Your task to perform on an android device: open app "Nova Launcher" (install if not already installed) Image 0: 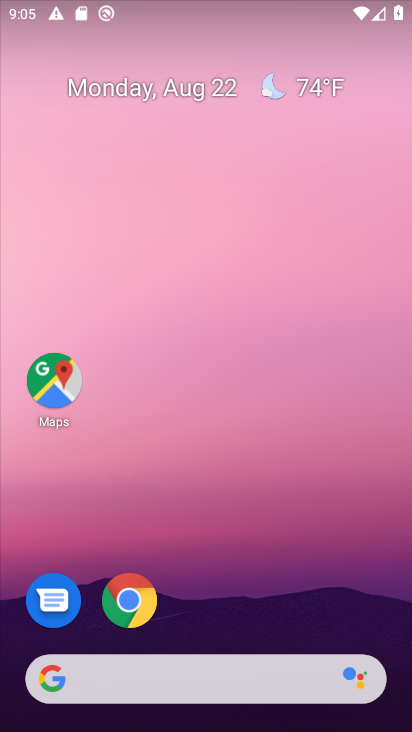
Step 0: drag from (210, 589) to (268, 122)
Your task to perform on an android device: open app "Nova Launcher" (install if not already installed) Image 1: 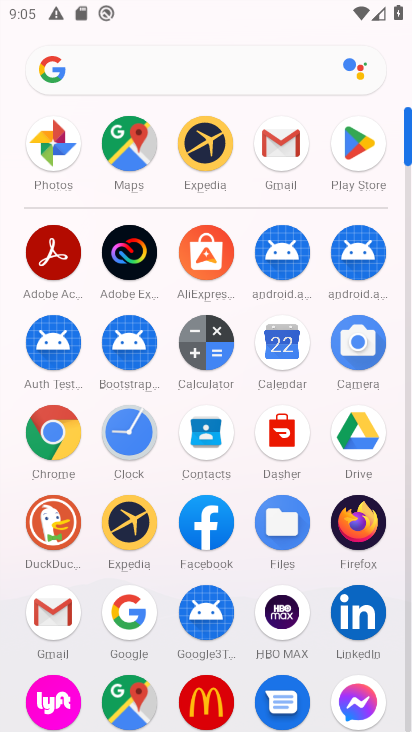
Step 1: click (358, 151)
Your task to perform on an android device: open app "Nova Launcher" (install if not already installed) Image 2: 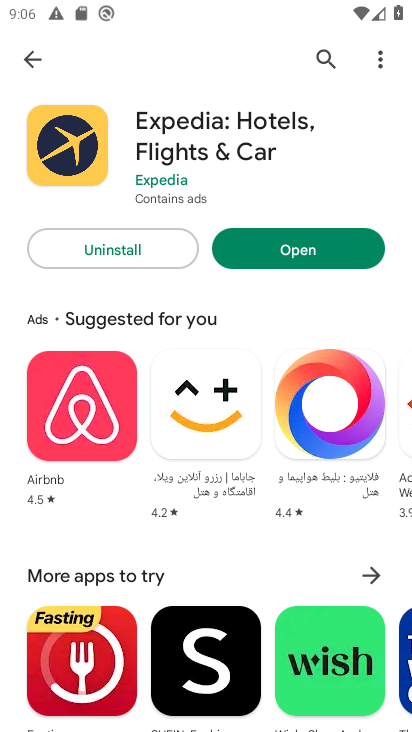
Step 2: click (330, 55)
Your task to perform on an android device: open app "Nova Launcher" (install if not already installed) Image 3: 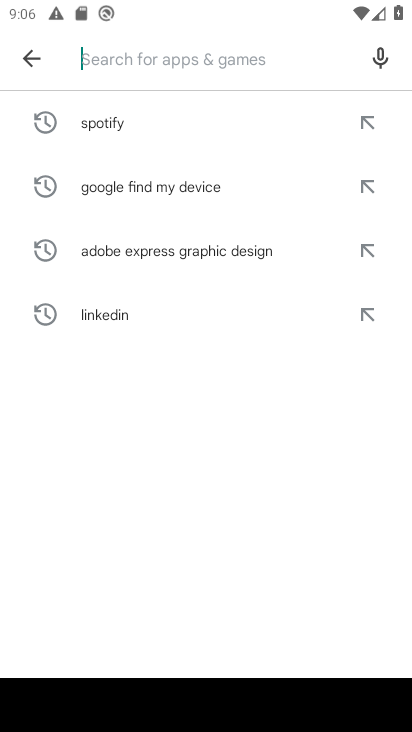
Step 3: type "Nova Launcher"
Your task to perform on an android device: open app "Nova Launcher" (install if not already installed) Image 4: 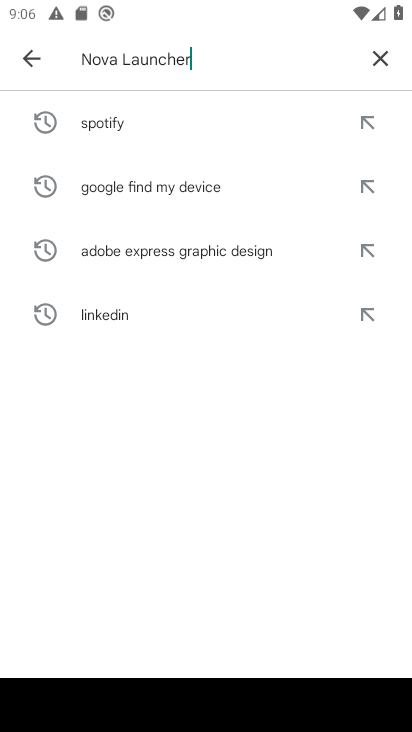
Step 4: type ""
Your task to perform on an android device: open app "Nova Launcher" (install if not already installed) Image 5: 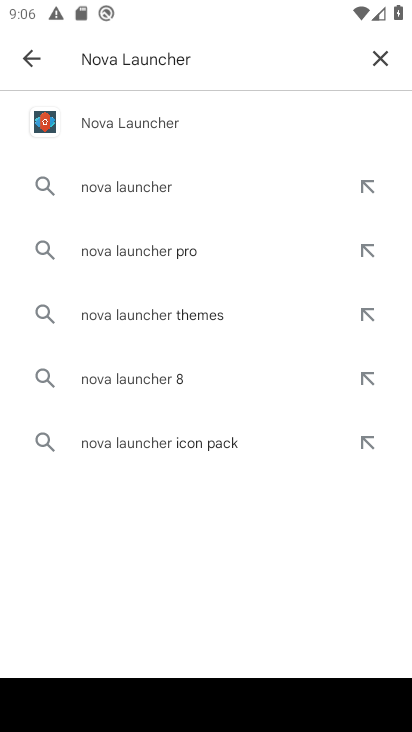
Step 5: click (97, 116)
Your task to perform on an android device: open app "Nova Launcher" (install if not already installed) Image 6: 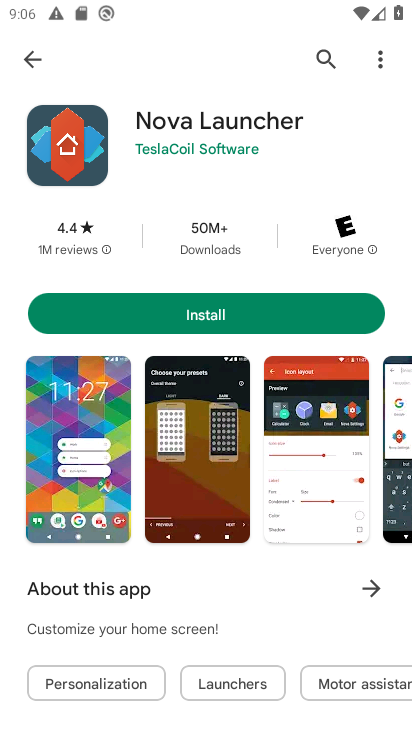
Step 6: click (212, 312)
Your task to perform on an android device: open app "Nova Launcher" (install if not already installed) Image 7: 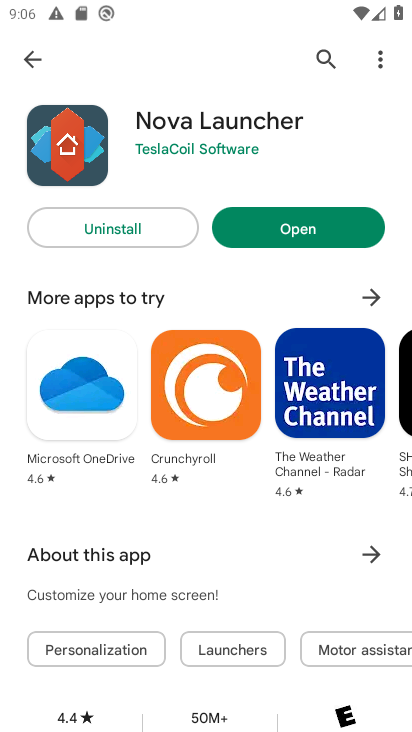
Step 7: click (293, 228)
Your task to perform on an android device: open app "Nova Launcher" (install if not already installed) Image 8: 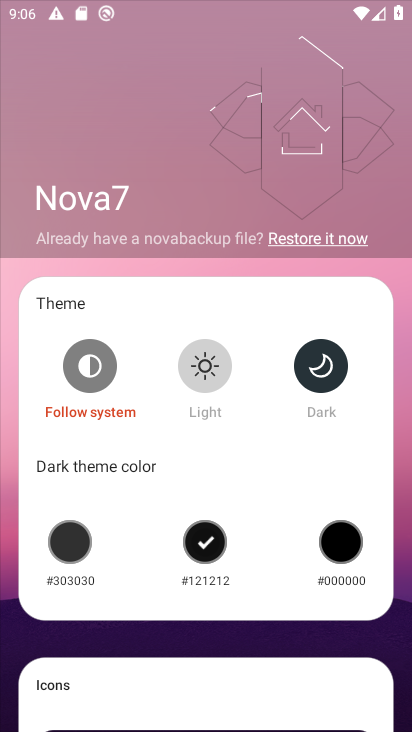
Step 8: task complete